Your task to perform on an android device: open app "AliExpress" Image 0: 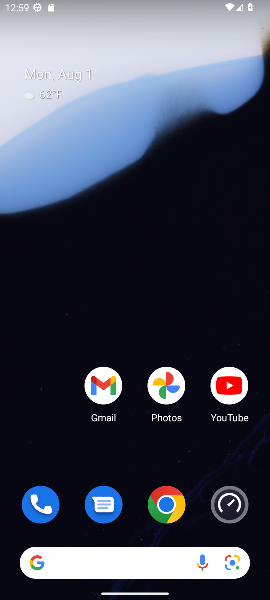
Step 0: drag from (121, 562) to (158, 0)
Your task to perform on an android device: open app "AliExpress" Image 1: 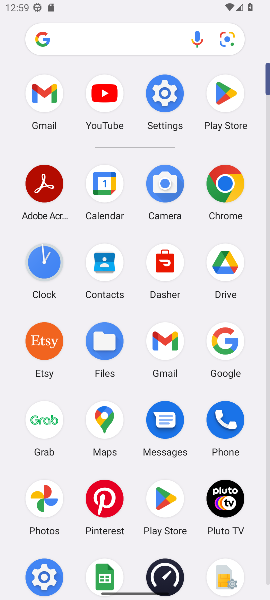
Step 1: click (167, 86)
Your task to perform on an android device: open app "AliExpress" Image 2: 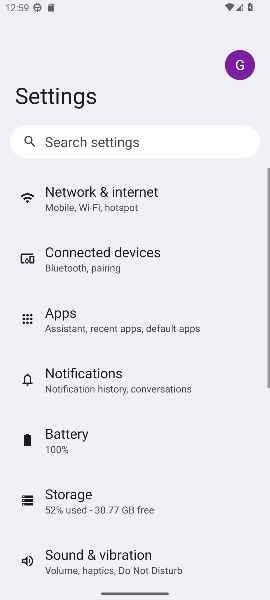
Step 2: press home button
Your task to perform on an android device: open app "AliExpress" Image 3: 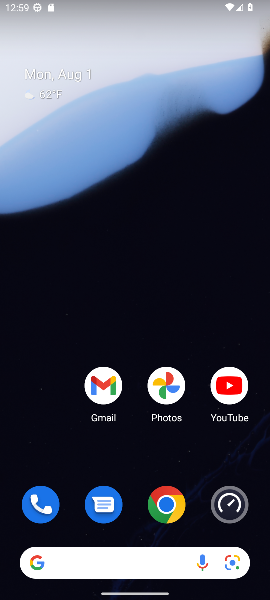
Step 3: drag from (136, 586) to (158, 205)
Your task to perform on an android device: open app "AliExpress" Image 4: 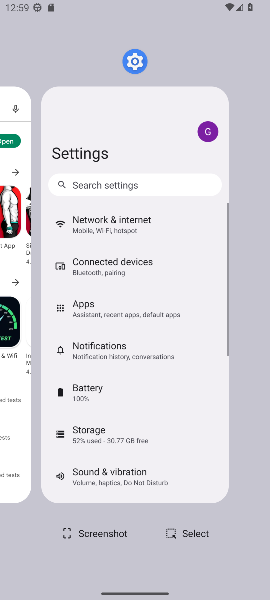
Step 4: press home button
Your task to perform on an android device: open app "AliExpress" Image 5: 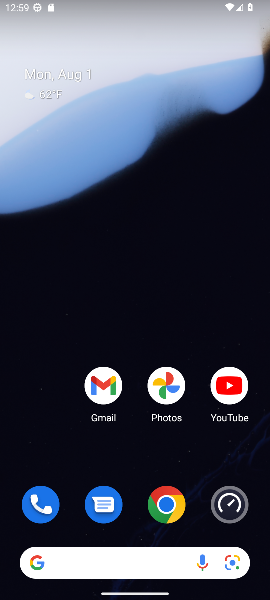
Step 5: drag from (165, 548) to (257, 5)
Your task to perform on an android device: open app "AliExpress" Image 6: 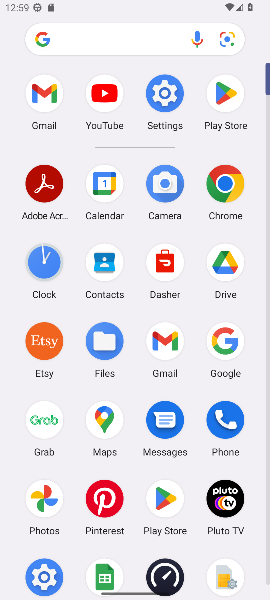
Step 6: click (235, 86)
Your task to perform on an android device: open app "AliExpress" Image 7: 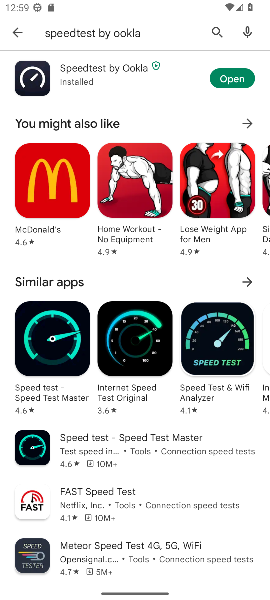
Step 7: click (219, 28)
Your task to perform on an android device: open app "AliExpress" Image 8: 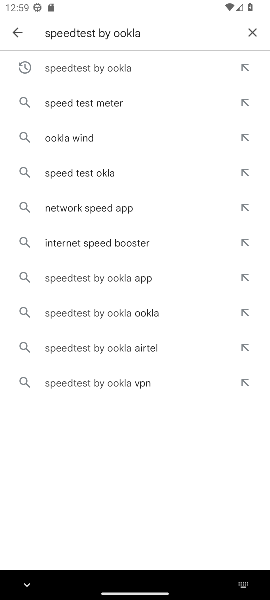
Step 8: click (248, 28)
Your task to perform on an android device: open app "AliExpress" Image 9: 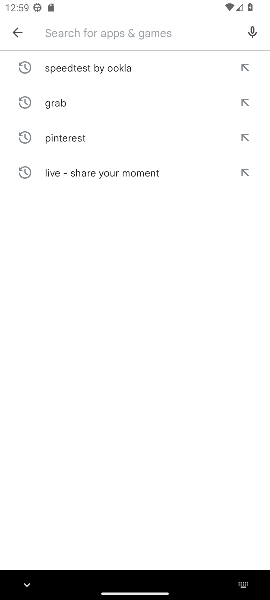
Step 9: type "aliexpress"
Your task to perform on an android device: open app "AliExpress" Image 10: 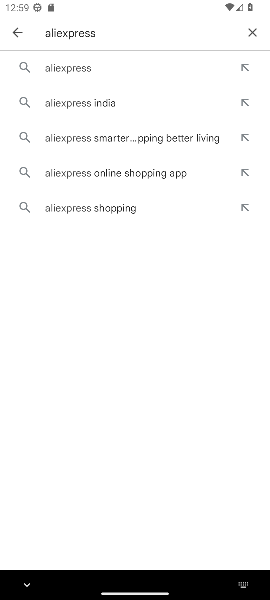
Step 10: click (83, 63)
Your task to perform on an android device: open app "AliExpress" Image 11: 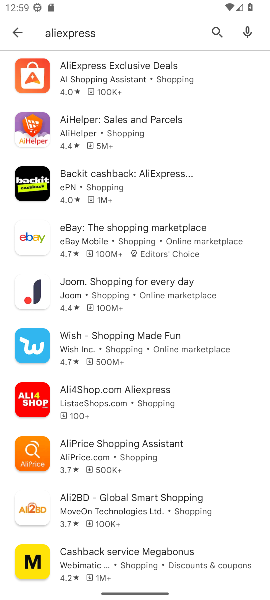
Step 11: click (124, 66)
Your task to perform on an android device: open app "AliExpress" Image 12: 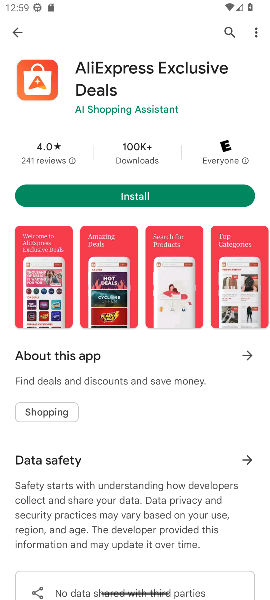
Step 12: task complete